Your task to perform on an android device: make emails show in primary in the gmail app Image 0: 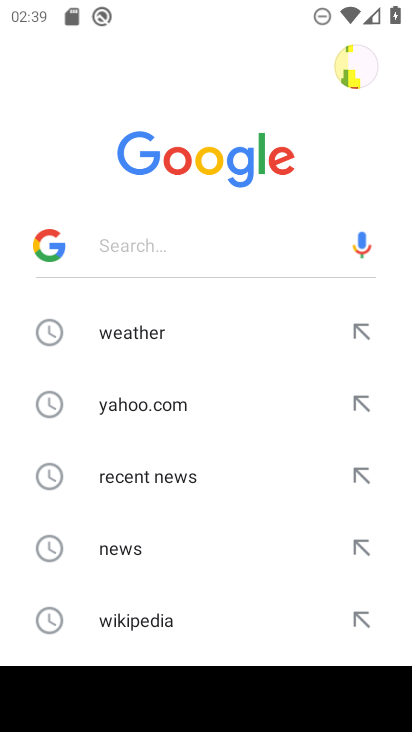
Step 0: press home button
Your task to perform on an android device: make emails show in primary in the gmail app Image 1: 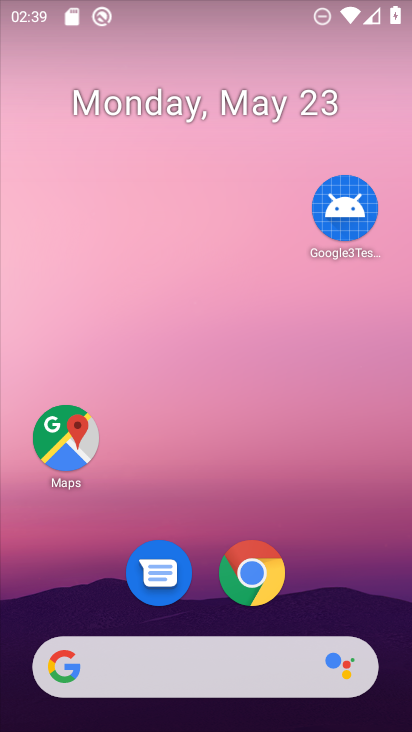
Step 1: drag from (336, 554) to (263, 132)
Your task to perform on an android device: make emails show in primary in the gmail app Image 2: 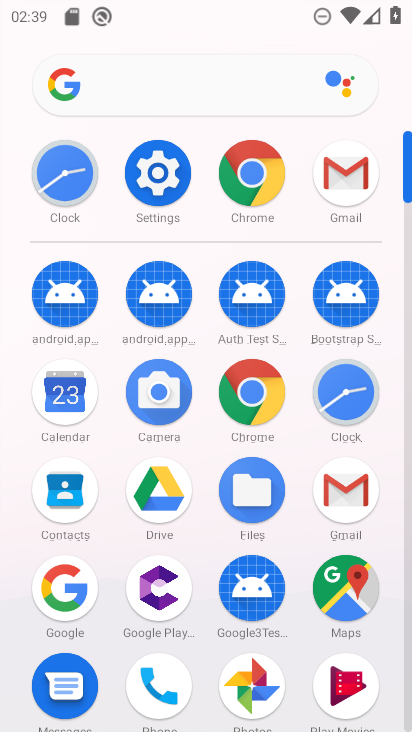
Step 2: click (363, 180)
Your task to perform on an android device: make emails show in primary in the gmail app Image 3: 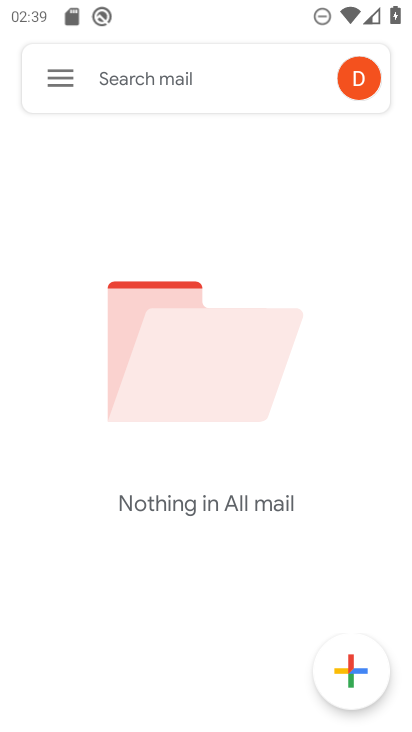
Step 3: click (47, 76)
Your task to perform on an android device: make emails show in primary in the gmail app Image 4: 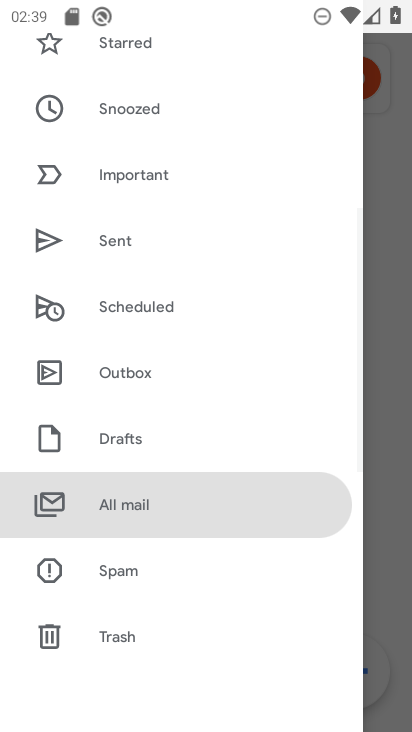
Step 4: drag from (148, 571) to (208, 183)
Your task to perform on an android device: make emails show in primary in the gmail app Image 5: 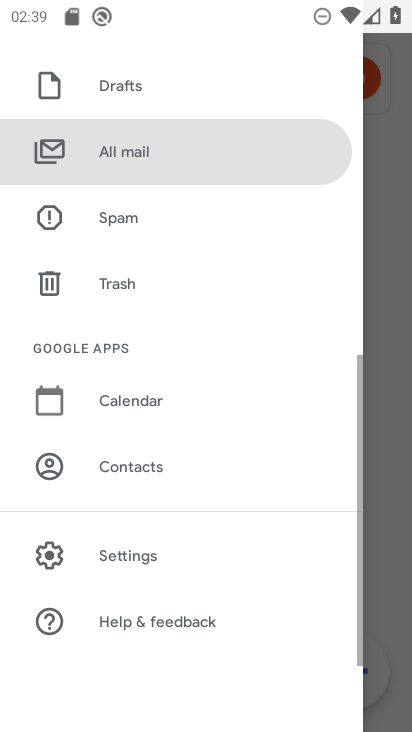
Step 5: click (114, 554)
Your task to perform on an android device: make emails show in primary in the gmail app Image 6: 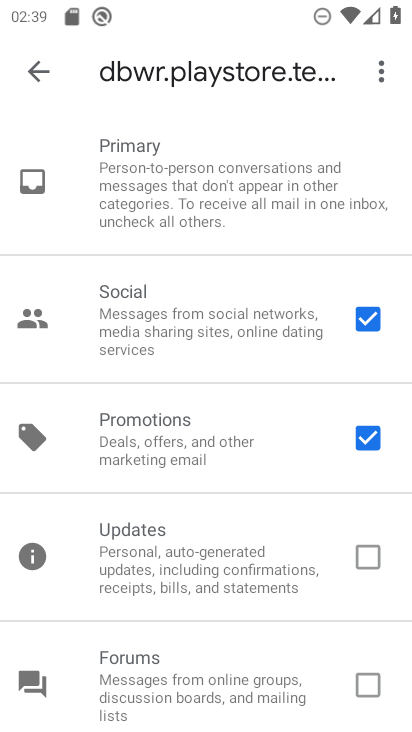
Step 6: task complete